Your task to perform on an android device: set an alarm Image 0: 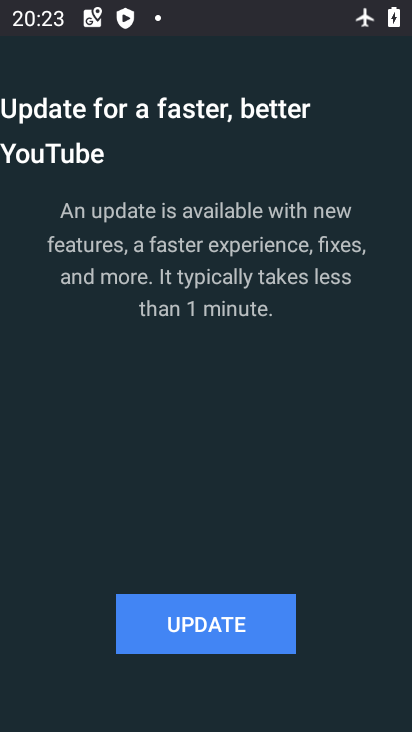
Step 0: press home button
Your task to perform on an android device: set an alarm Image 1: 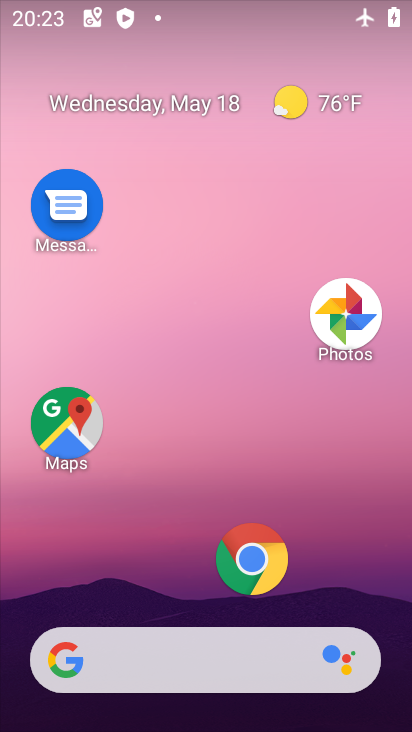
Step 1: drag from (225, 620) to (230, 6)
Your task to perform on an android device: set an alarm Image 2: 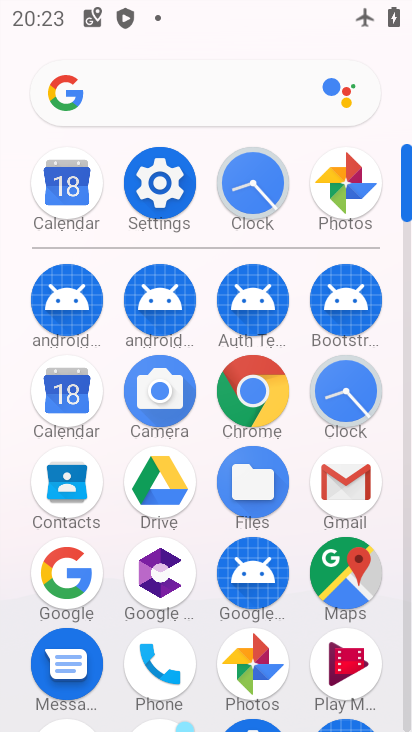
Step 2: click (334, 396)
Your task to perform on an android device: set an alarm Image 3: 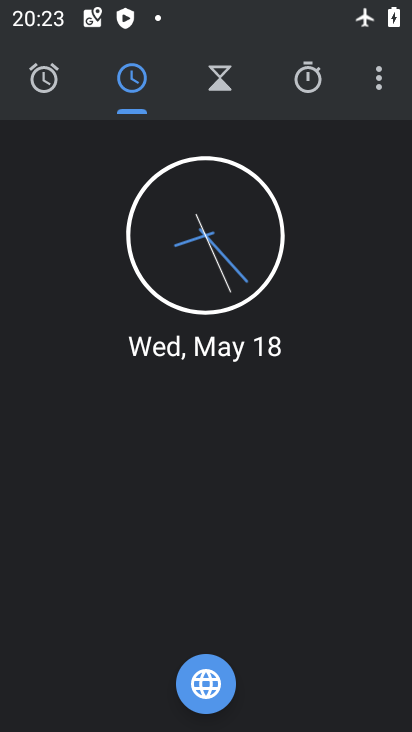
Step 3: click (42, 74)
Your task to perform on an android device: set an alarm Image 4: 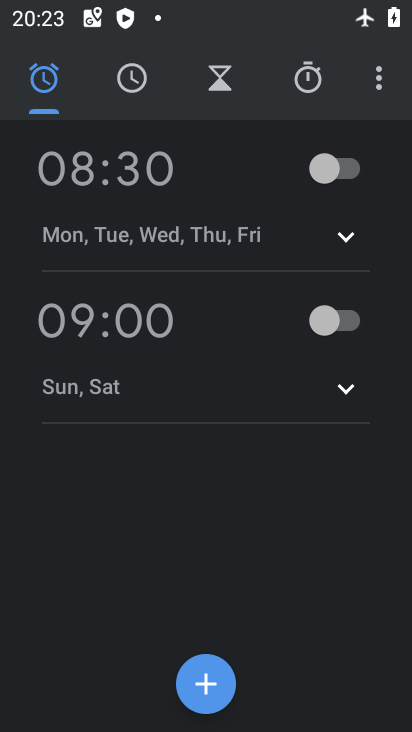
Step 4: click (203, 689)
Your task to perform on an android device: set an alarm Image 5: 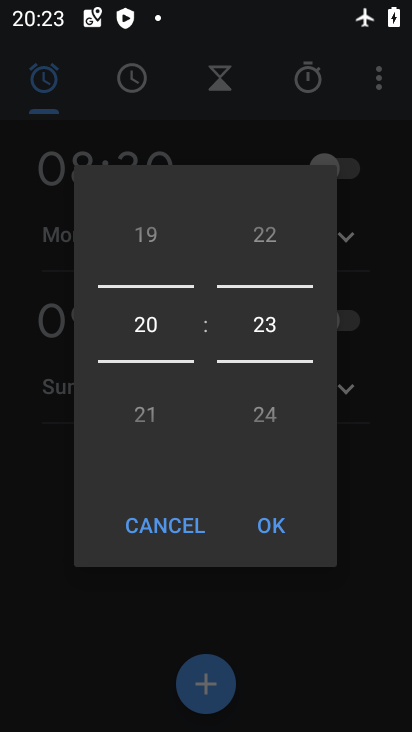
Step 5: click (260, 525)
Your task to perform on an android device: set an alarm Image 6: 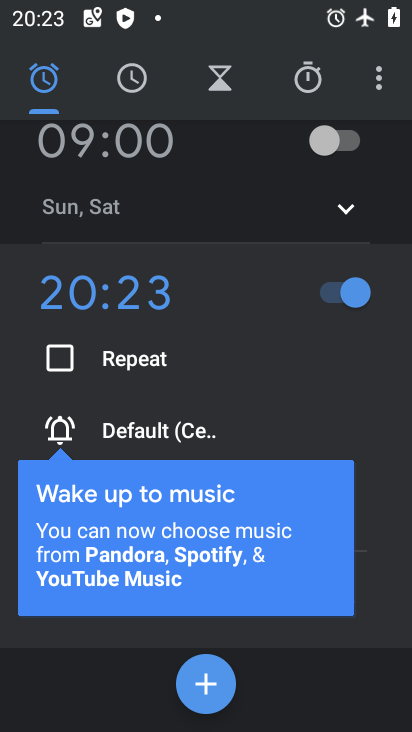
Step 6: task complete